Your task to perform on an android device: uninstall "Facebook Messenger" Image 0: 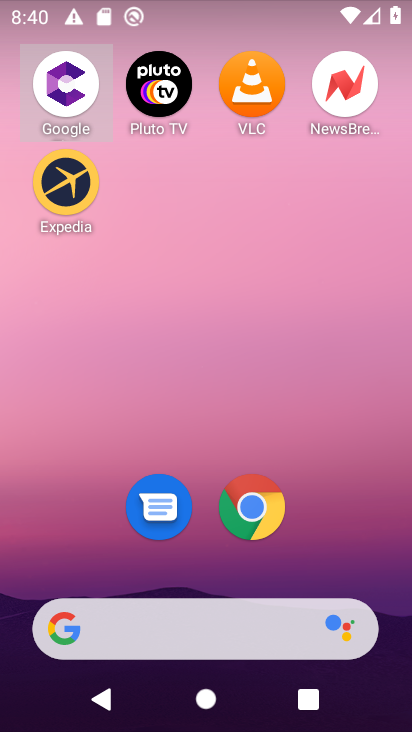
Step 0: drag from (175, 630) to (172, 160)
Your task to perform on an android device: uninstall "Facebook Messenger" Image 1: 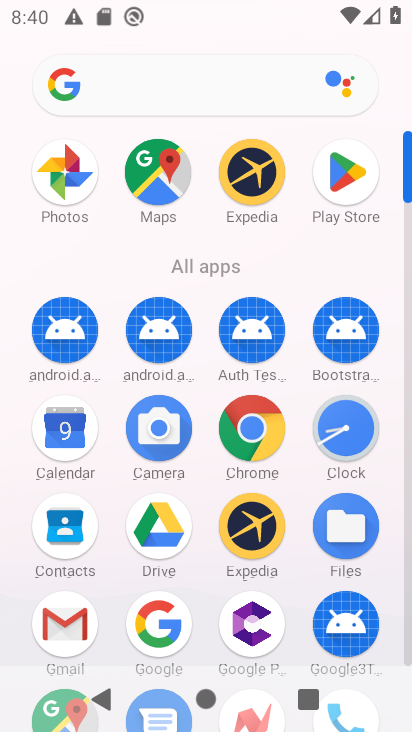
Step 1: drag from (200, 595) to (231, 286)
Your task to perform on an android device: uninstall "Facebook Messenger" Image 2: 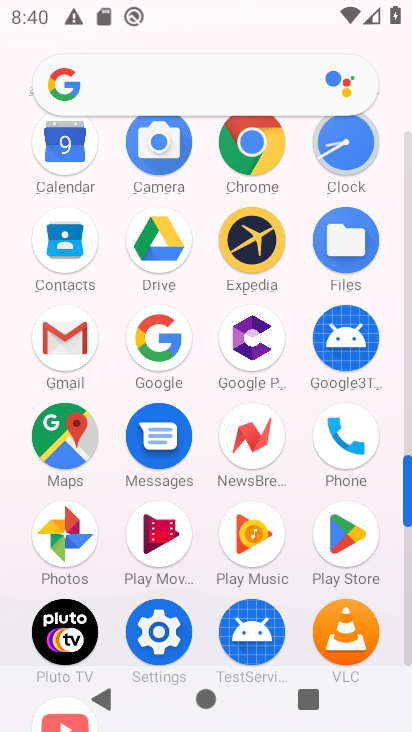
Step 2: click (352, 537)
Your task to perform on an android device: uninstall "Facebook Messenger" Image 3: 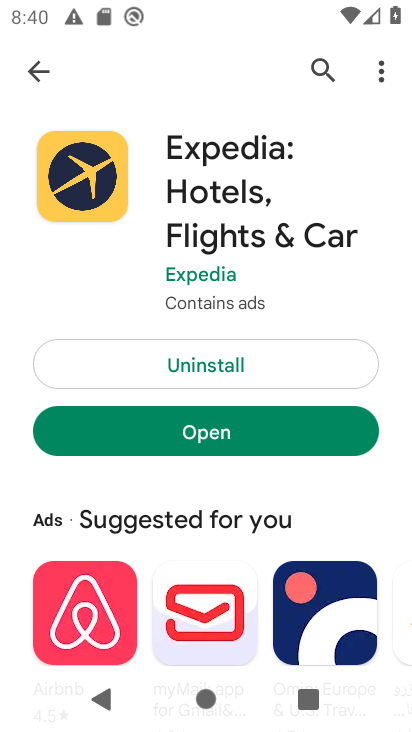
Step 3: click (326, 66)
Your task to perform on an android device: uninstall "Facebook Messenger" Image 4: 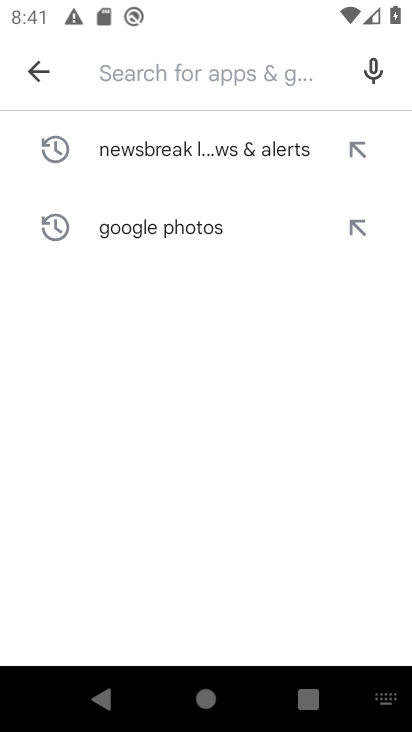
Step 4: type "Facebook Messenger"
Your task to perform on an android device: uninstall "Facebook Messenger" Image 5: 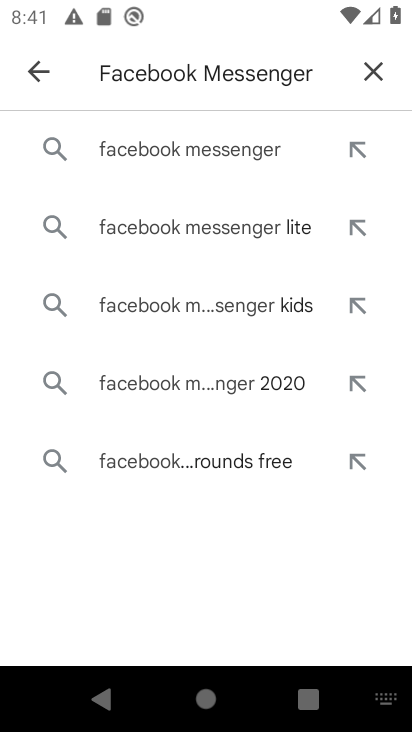
Step 5: click (209, 153)
Your task to perform on an android device: uninstall "Facebook Messenger" Image 6: 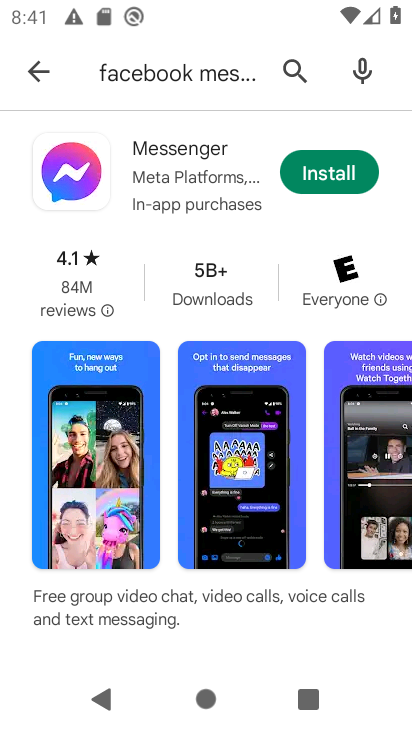
Step 6: task complete